Your task to perform on an android device: change the clock display to analog Image 0: 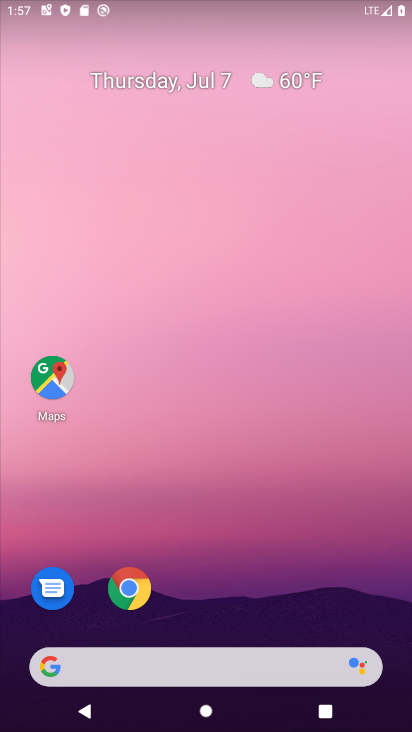
Step 0: click (281, 211)
Your task to perform on an android device: change the clock display to analog Image 1: 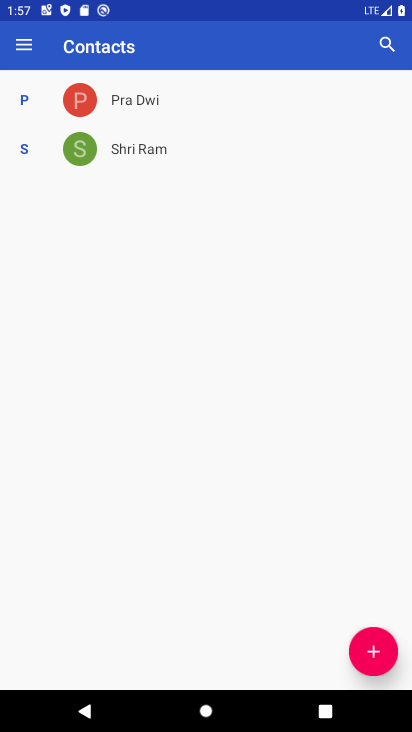
Step 1: press home button
Your task to perform on an android device: change the clock display to analog Image 2: 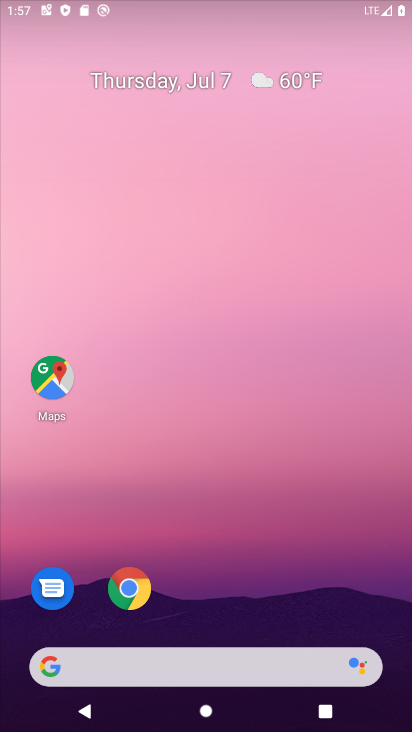
Step 2: drag from (205, 597) to (234, 287)
Your task to perform on an android device: change the clock display to analog Image 3: 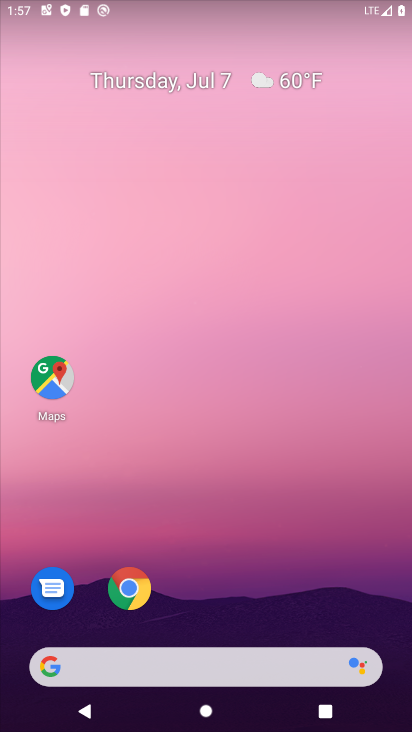
Step 3: drag from (256, 601) to (257, 124)
Your task to perform on an android device: change the clock display to analog Image 4: 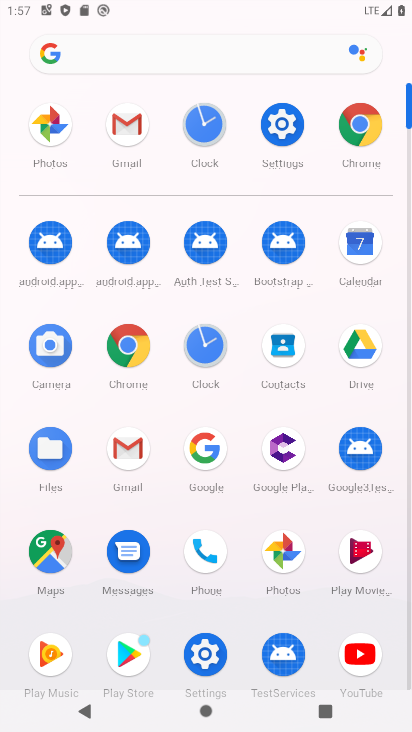
Step 4: click (130, 343)
Your task to perform on an android device: change the clock display to analog Image 5: 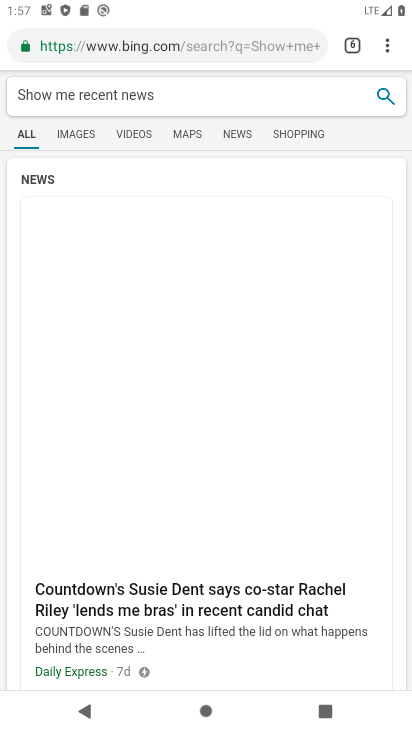
Step 5: click (193, 341)
Your task to perform on an android device: change the clock display to analog Image 6: 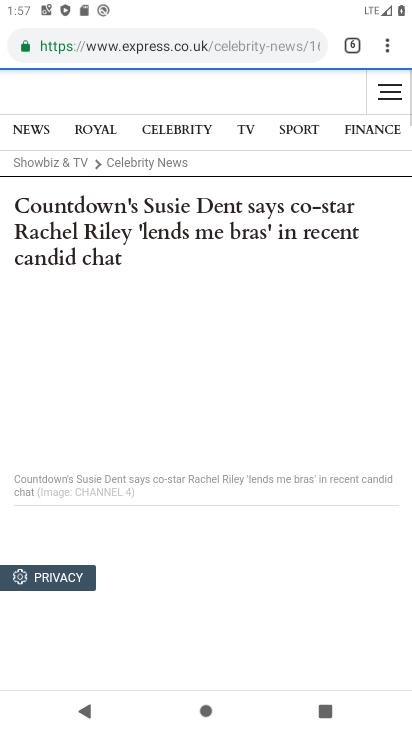
Step 6: press home button
Your task to perform on an android device: change the clock display to analog Image 7: 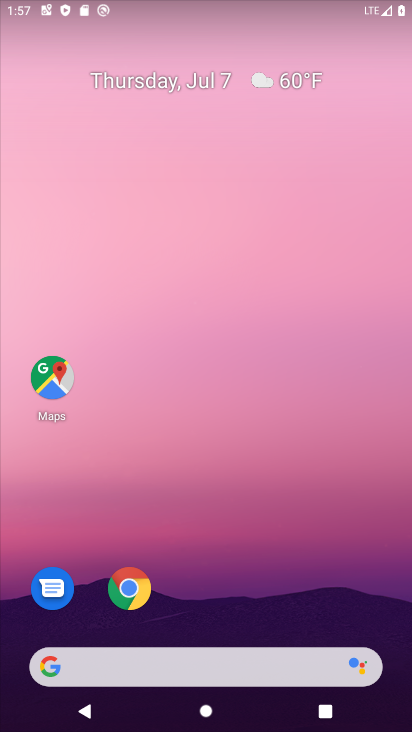
Step 7: drag from (227, 610) to (220, 204)
Your task to perform on an android device: change the clock display to analog Image 8: 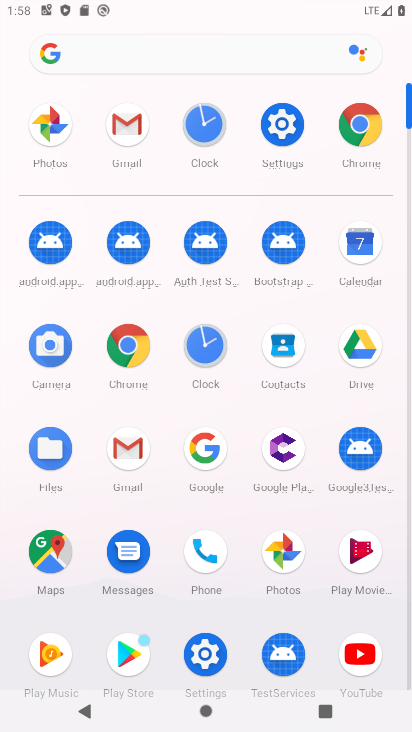
Step 8: click (201, 367)
Your task to perform on an android device: change the clock display to analog Image 9: 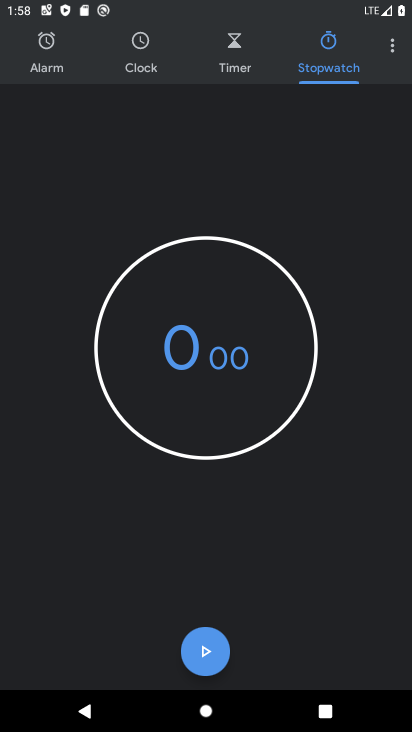
Step 9: click (402, 43)
Your task to perform on an android device: change the clock display to analog Image 10: 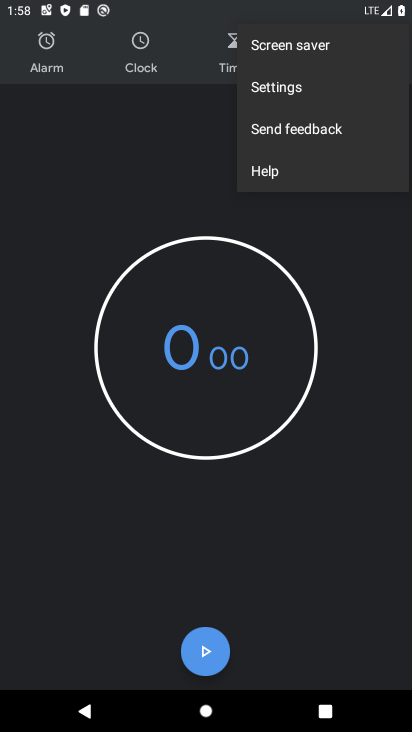
Step 10: click (286, 82)
Your task to perform on an android device: change the clock display to analog Image 11: 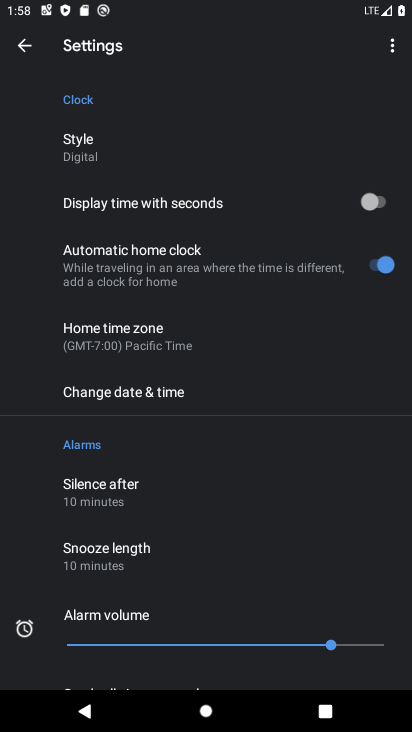
Step 11: click (134, 159)
Your task to perform on an android device: change the clock display to analog Image 12: 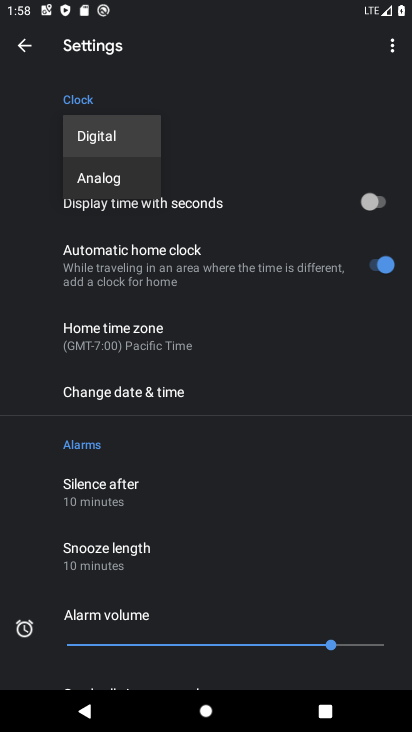
Step 12: click (109, 168)
Your task to perform on an android device: change the clock display to analog Image 13: 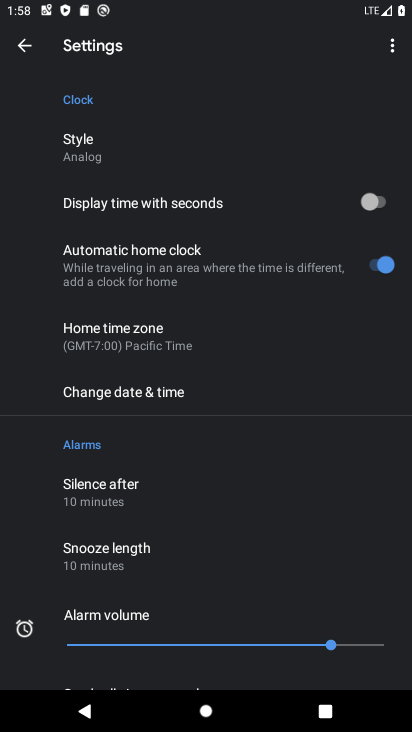
Step 13: task complete